Your task to perform on an android device: Turn on the flashlight Image 0: 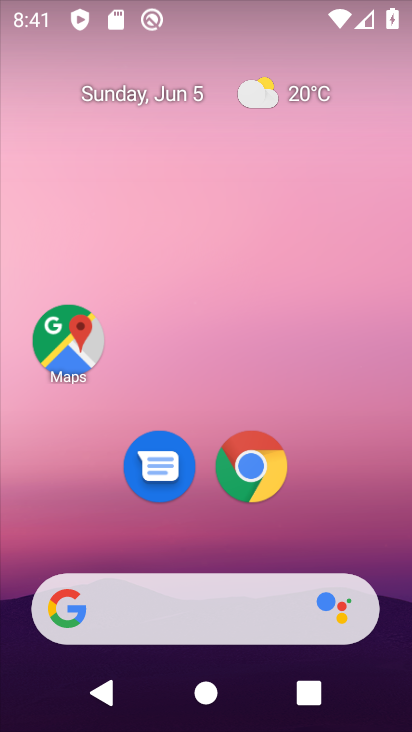
Step 0: drag from (239, 550) to (255, 50)
Your task to perform on an android device: Turn on the flashlight Image 1: 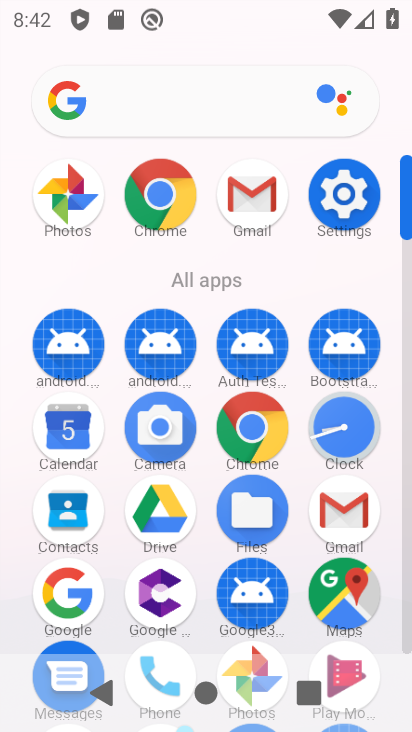
Step 1: click (351, 206)
Your task to perform on an android device: Turn on the flashlight Image 2: 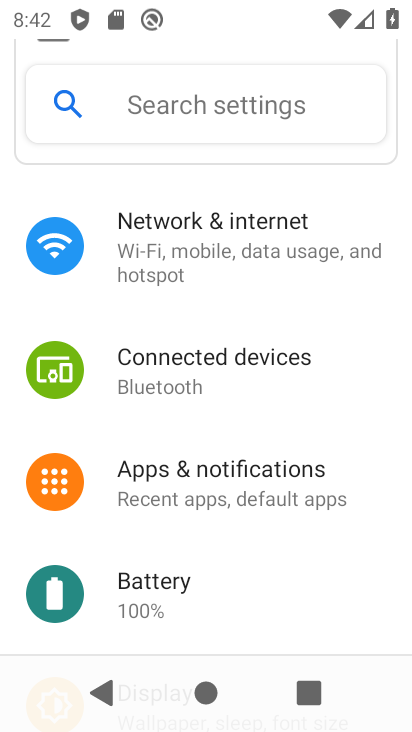
Step 2: task complete